Your task to perform on an android device: set an alarm Image 0: 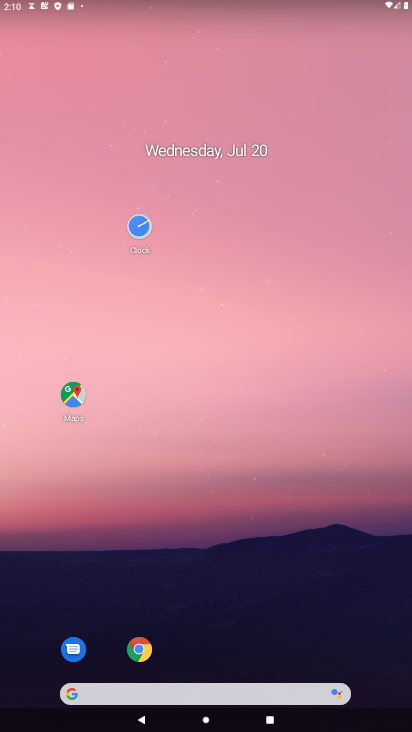
Step 0: click (137, 225)
Your task to perform on an android device: set an alarm Image 1: 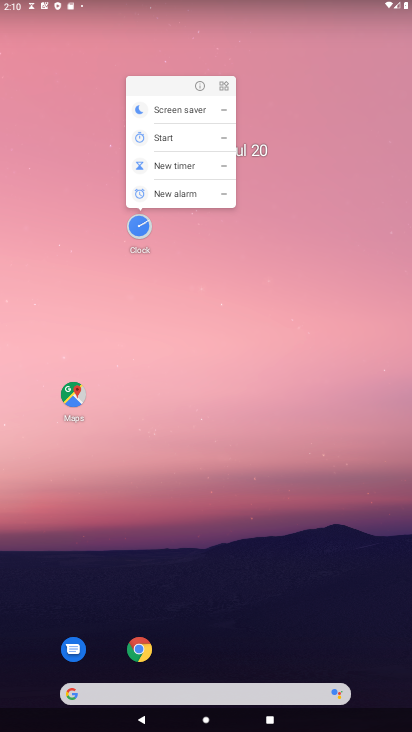
Step 1: click (137, 225)
Your task to perform on an android device: set an alarm Image 2: 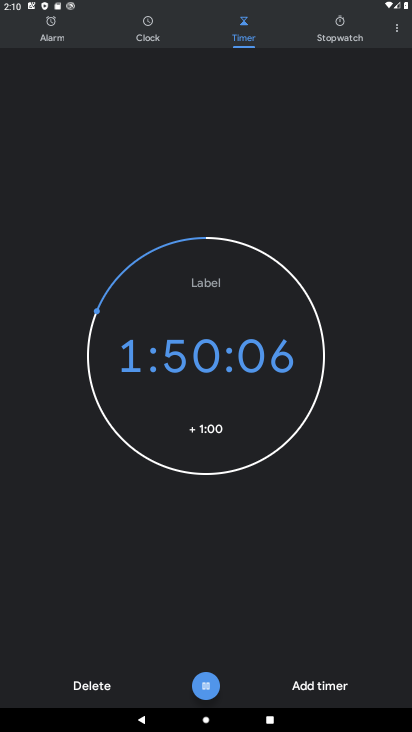
Step 2: click (44, 23)
Your task to perform on an android device: set an alarm Image 3: 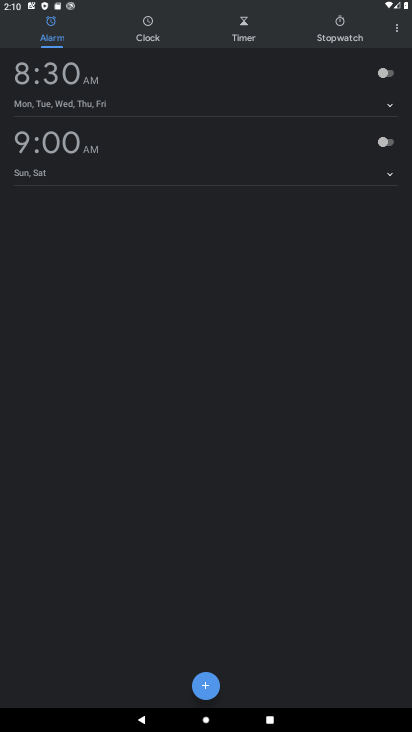
Step 3: click (381, 78)
Your task to perform on an android device: set an alarm Image 4: 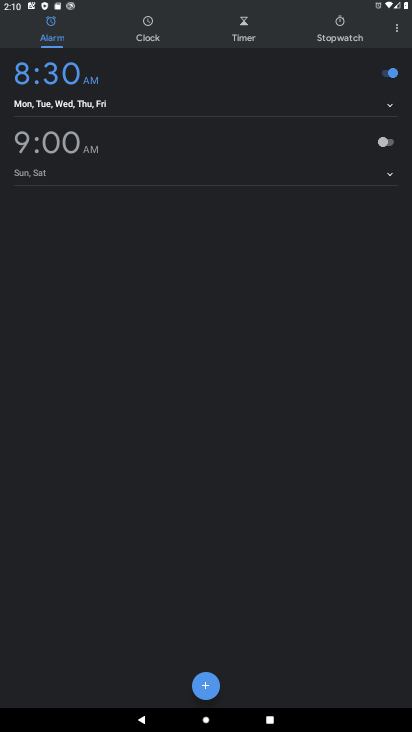
Step 4: task complete